Your task to perform on an android device: Open the web browser Image 0: 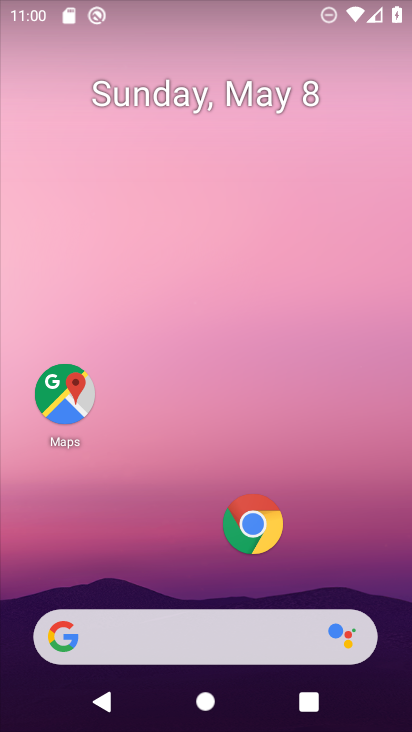
Step 0: click (261, 634)
Your task to perform on an android device: Open the web browser Image 1: 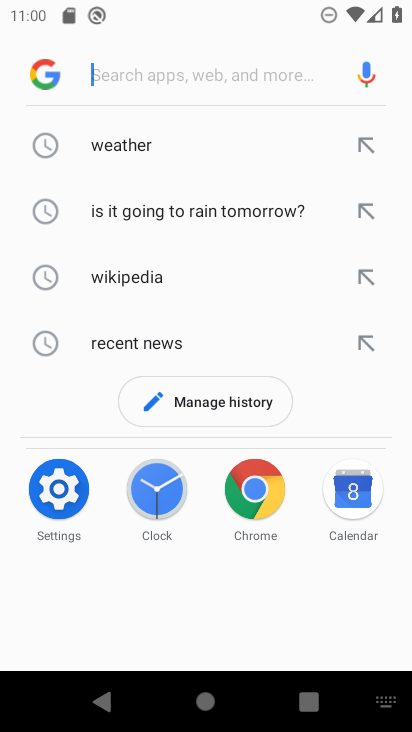
Step 1: click (264, 495)
Your task to perform on an android device: Open the web browser Image 2: 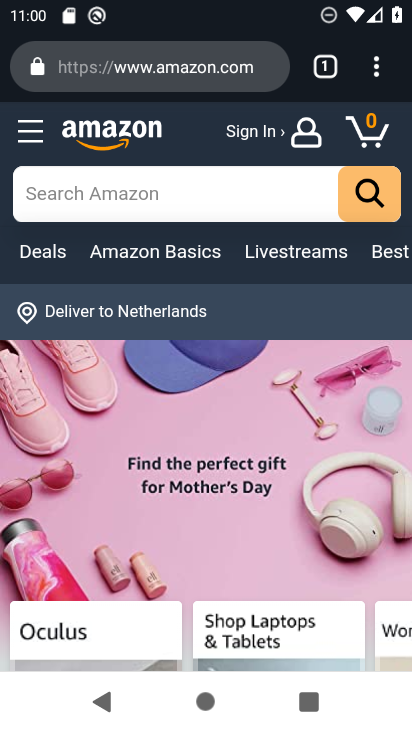
Step 2: task complete